Your task to perform on an android device: empty trash in google photos Image 0: 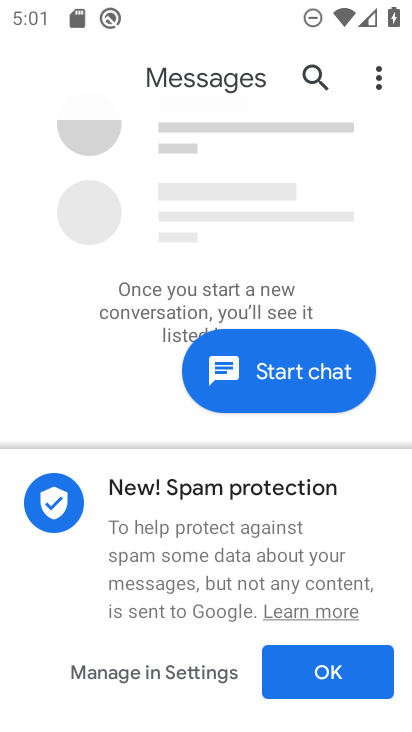
Step 0: press back button
Your task to perform on an android device: empty trash in google photos Image 1: 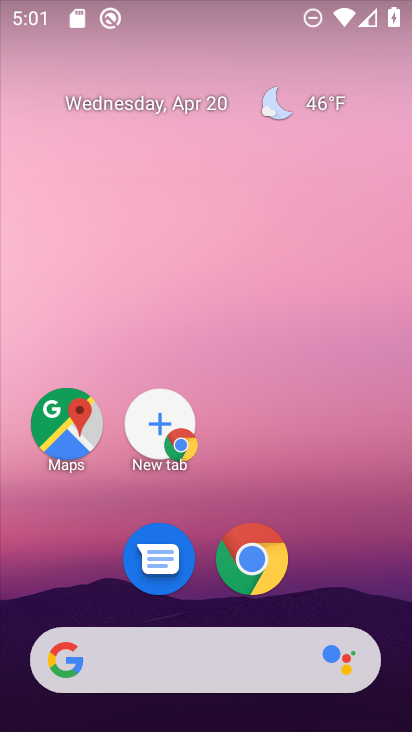
Step 1: drag from (320, 560) to (284, 49)
Your task to perform on an android device: empty trash in google photos Image 2: 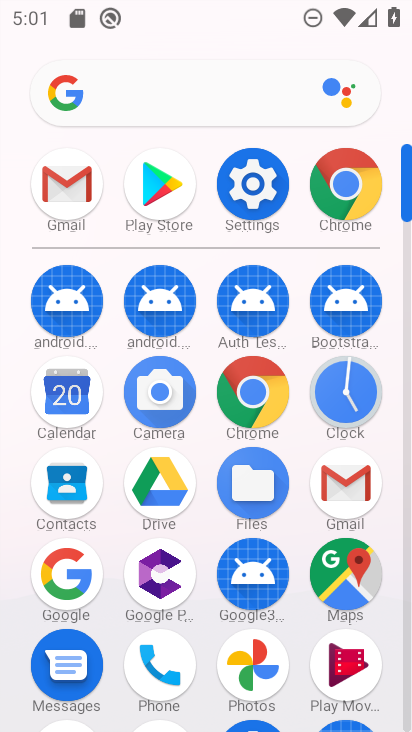
Step 2: click (263, 691)
Your task to perform on an android device: empty trash in google photos Image 3: 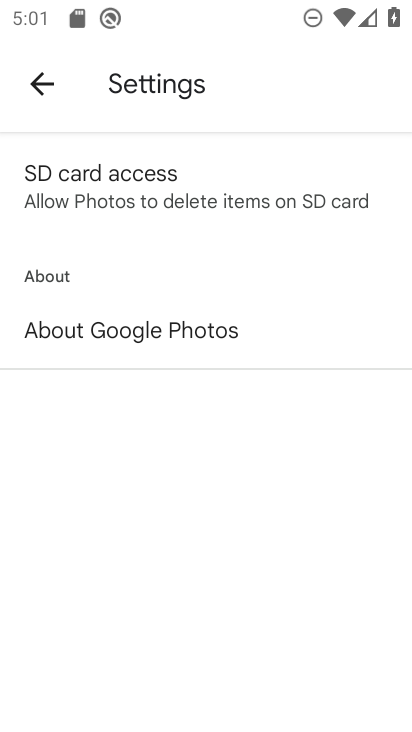
Step 3: press back button
Your task to perform on an android device: empty trash in google photos Image 4: 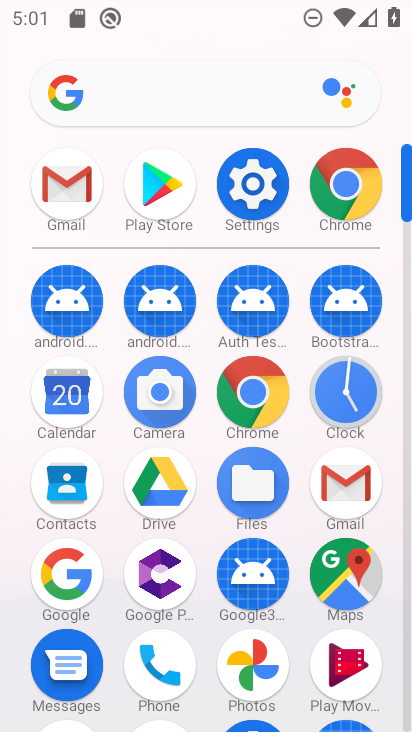
Step 4: click (261, 661)
Your task to perform on an android device: empty trash in google photos Image 5: 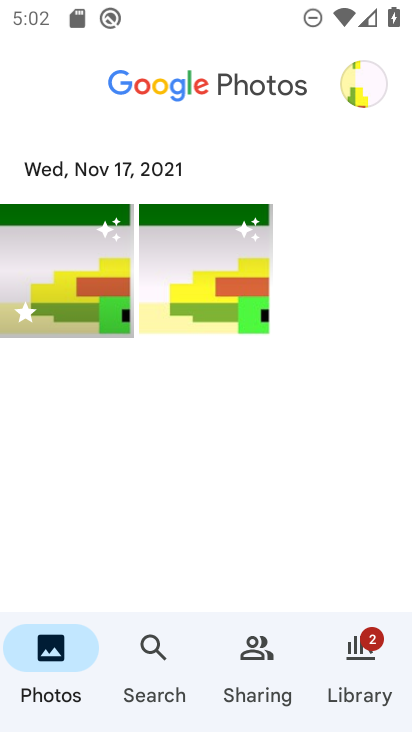
Step 5: task complete